Your task to perform on an android device: Open Youtube and go to "Your channel" Image 0: 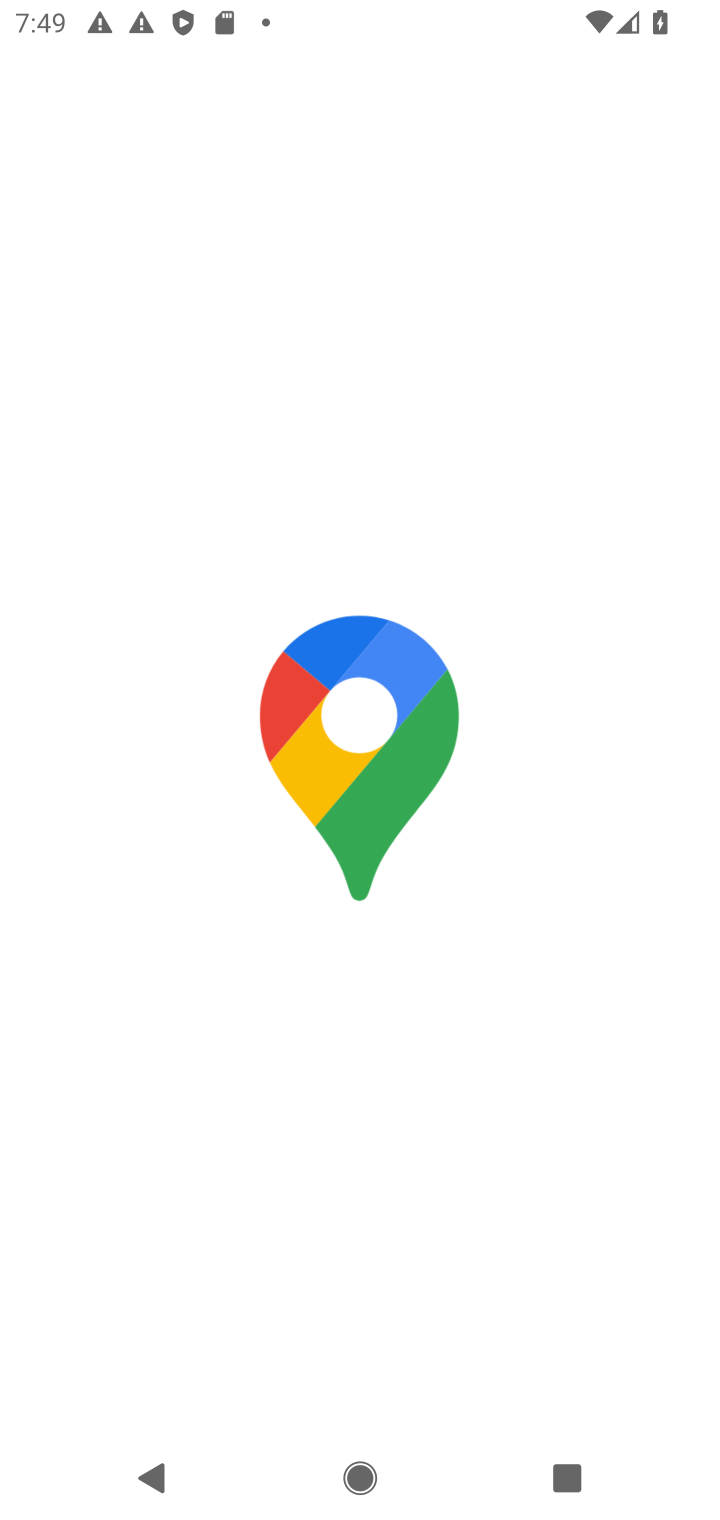
Step 0: press home button
Your task to perform on an android device: Open Youtube and go to "Your channel" Image 1: 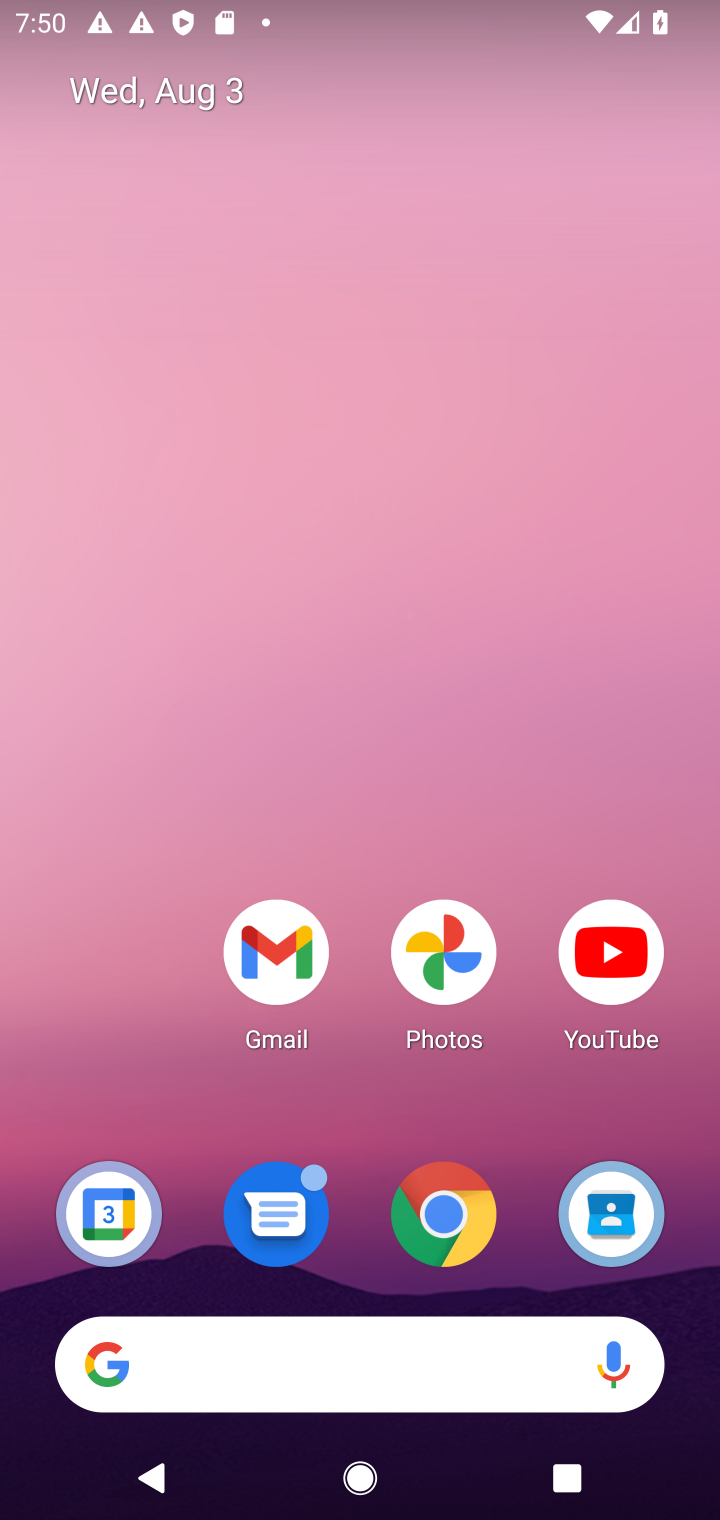
Step 1: click (595, 974)
Your task to perform on an android device: Open Youtube and go to "Your channel" Image 2: 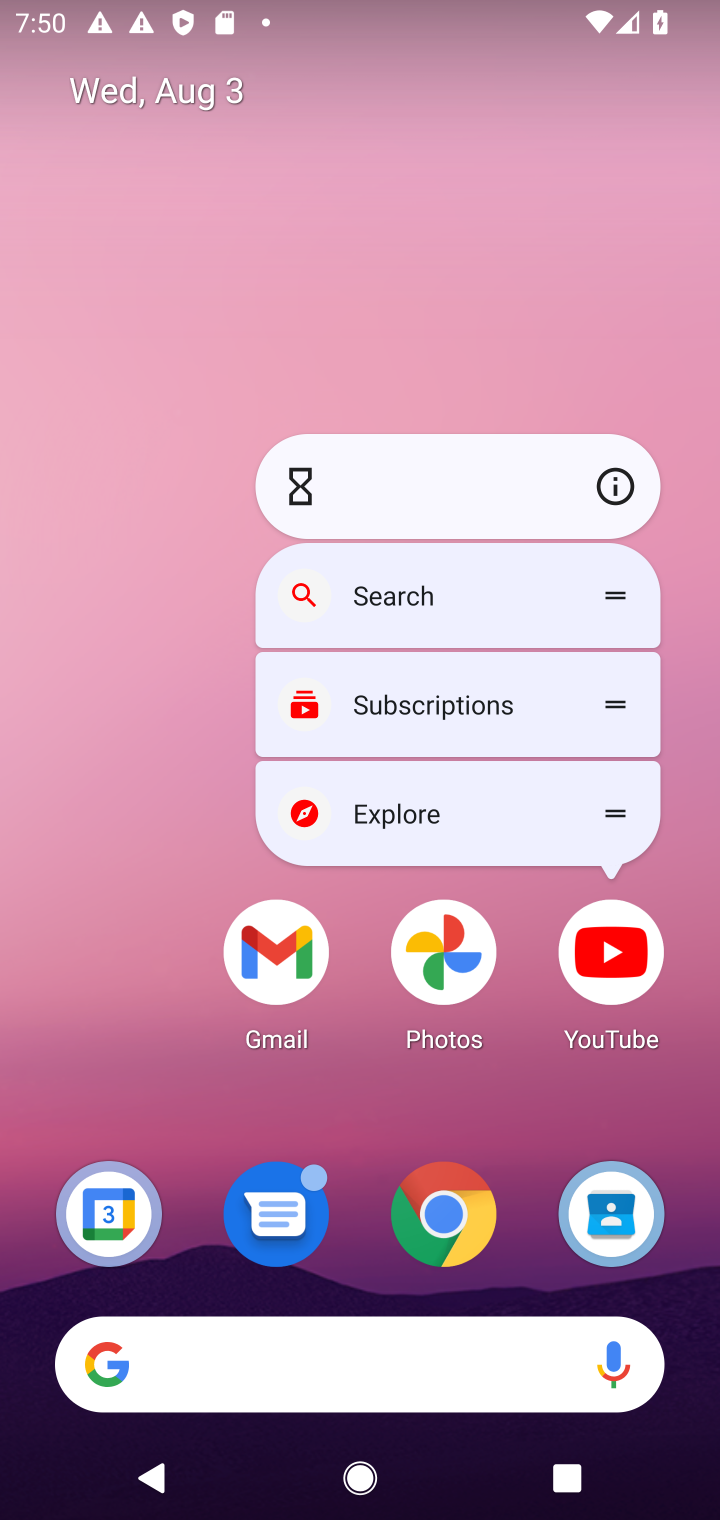
Step 2: click (592, 942)
Your task to perform on an android device: Open Youtube and go to "Your channel" Image 3: 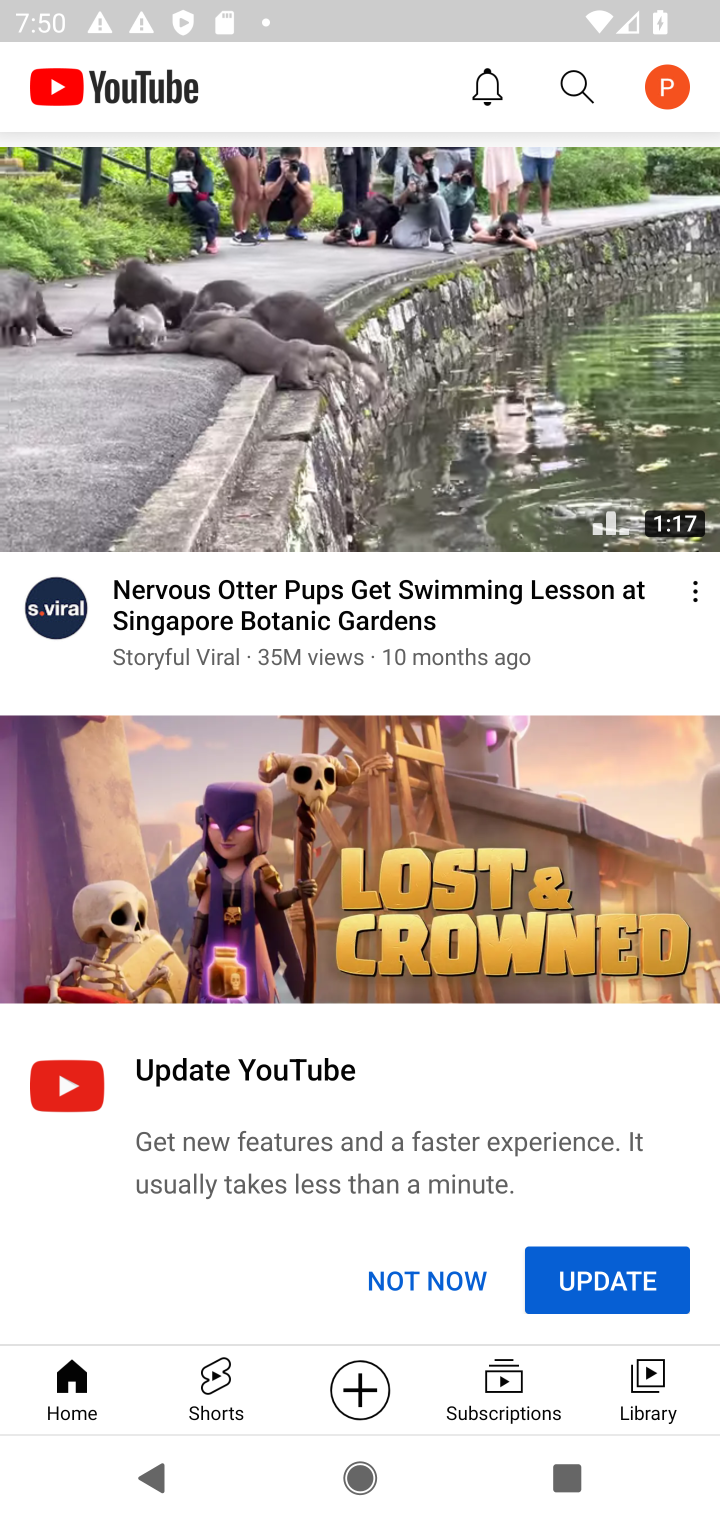
Step 3: click (682, 71)
Your task to perform on an android device: Open Youtube and go to "Your channel" Image 4: 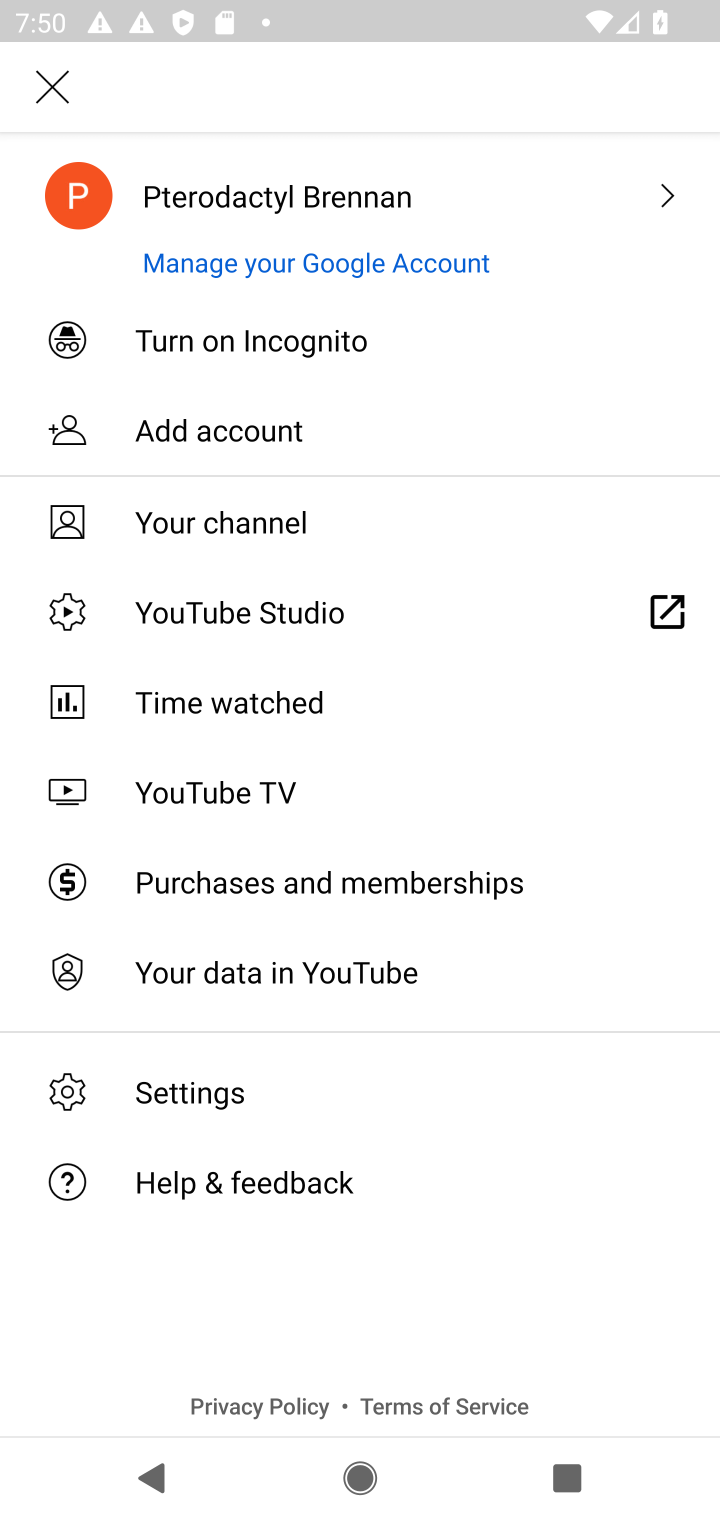
Step 4: click (678, 89)
Your task to perform on an android device: Open Youtube and go to "Your channel" Image 5: 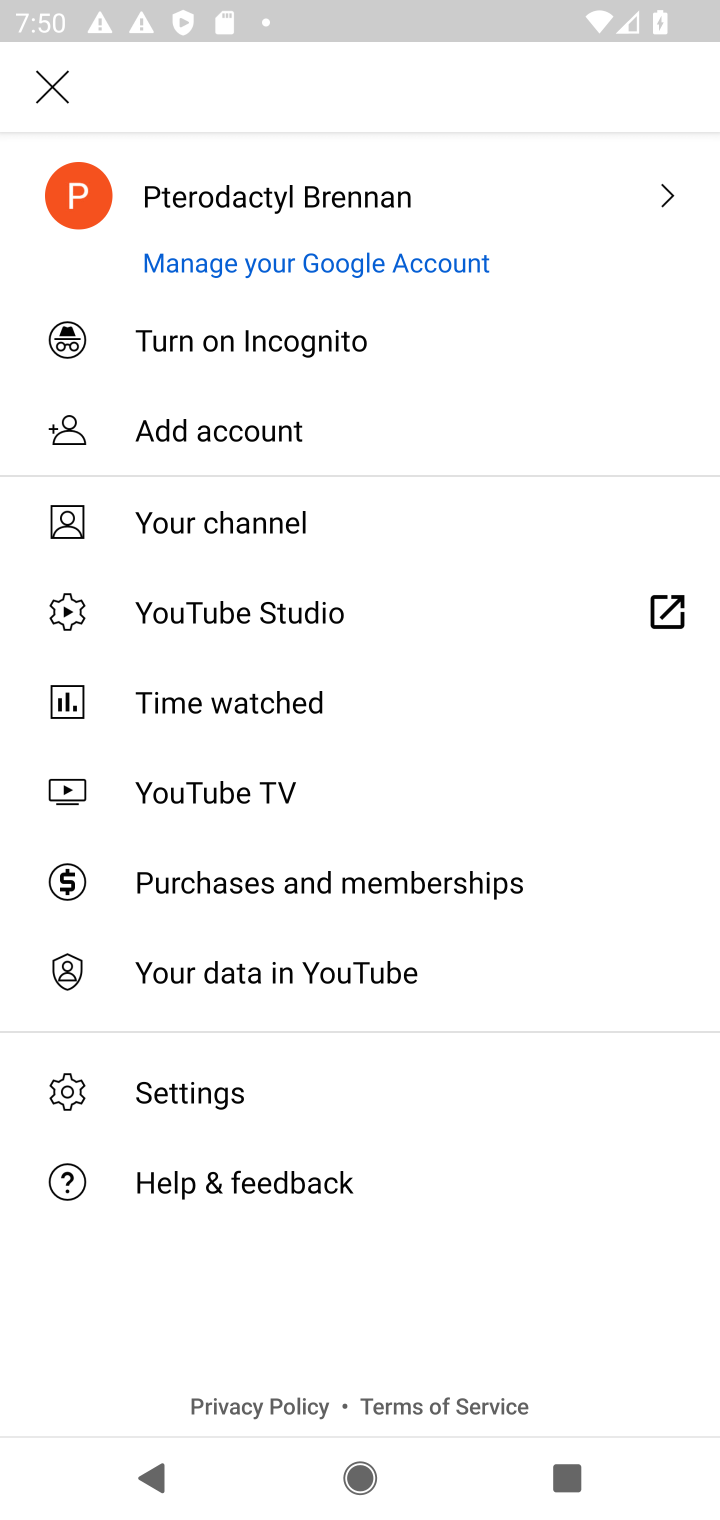
Step 5: click (227, 528)
Your task to perform on an android device: Open Youtube and go to "Your channel" Image 6: 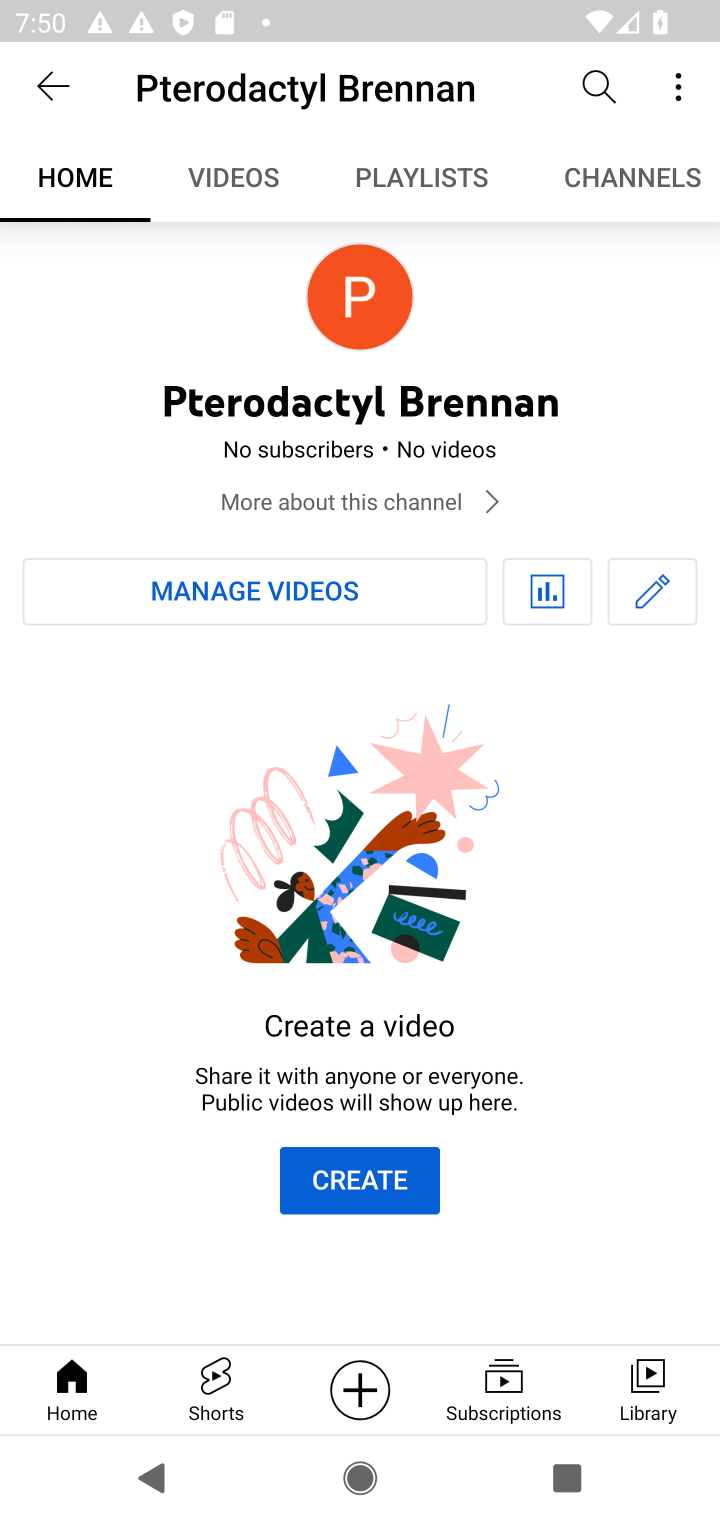
Step 6: task complete